Your task to perform on an android device: set an alarm Image 0: 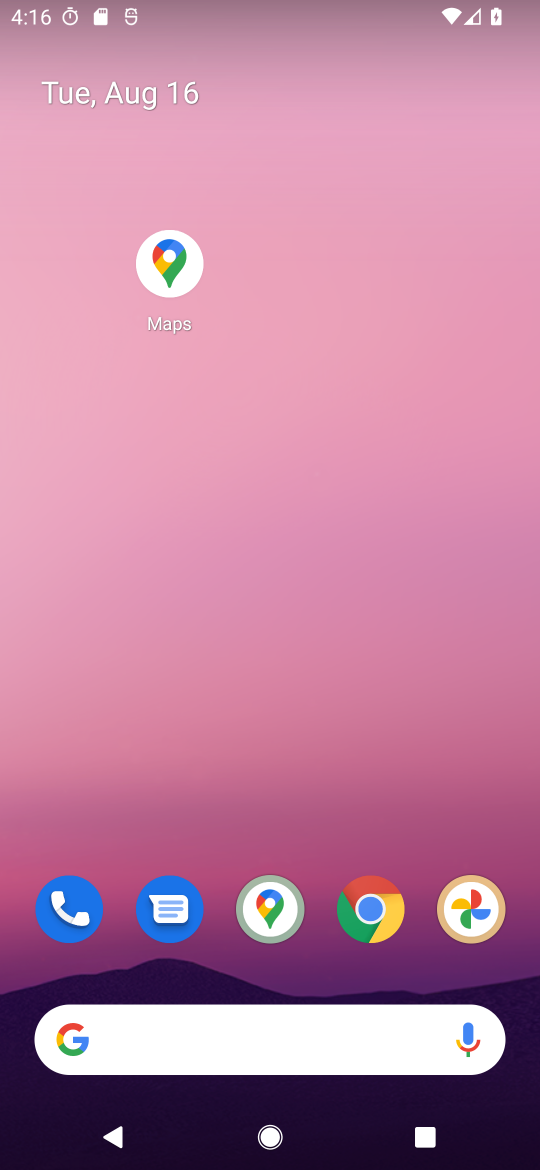
Step 0: drag from (309, 936) to (300, 45)
Your task to perform on an android device: set an alarm Image 1: 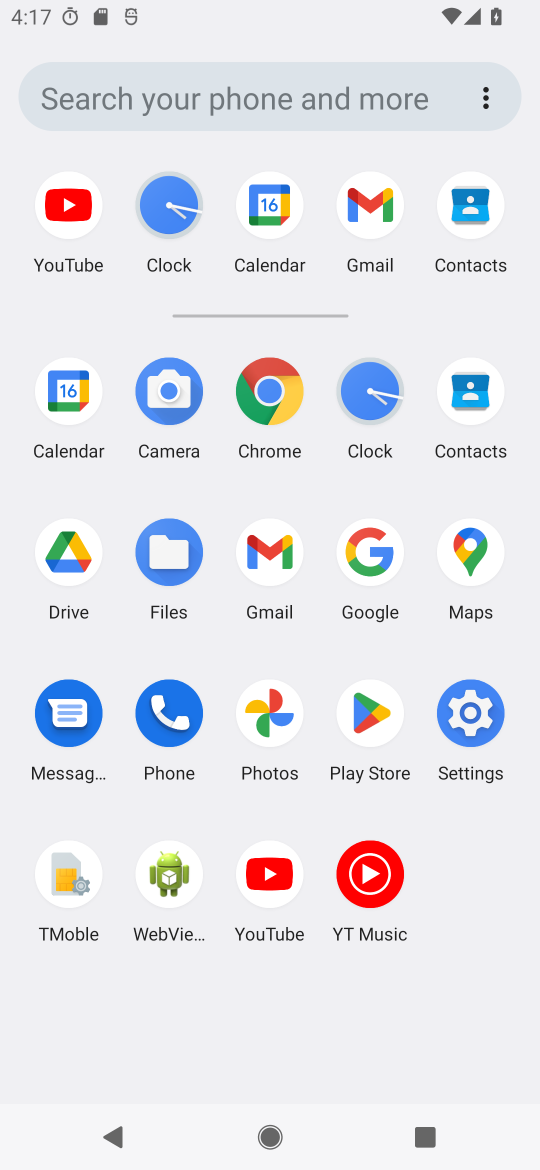
Step 1: click (167, 217)
Your task to perform on an android device: set an alarm Image 2: 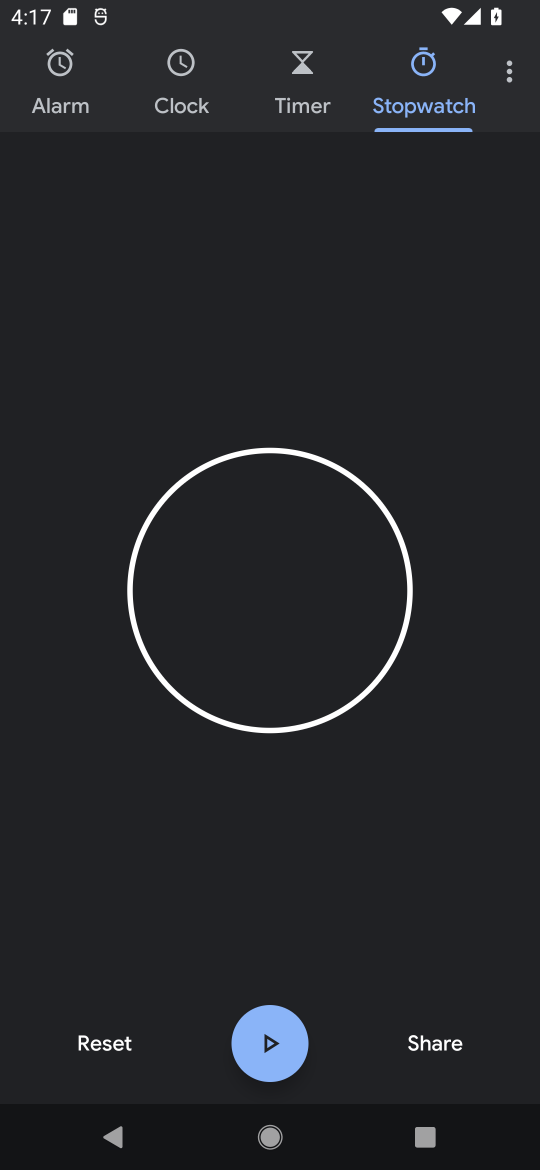
Step 2: click (53, 63)
Your task to perform on an android device: set an alarm Image 3: 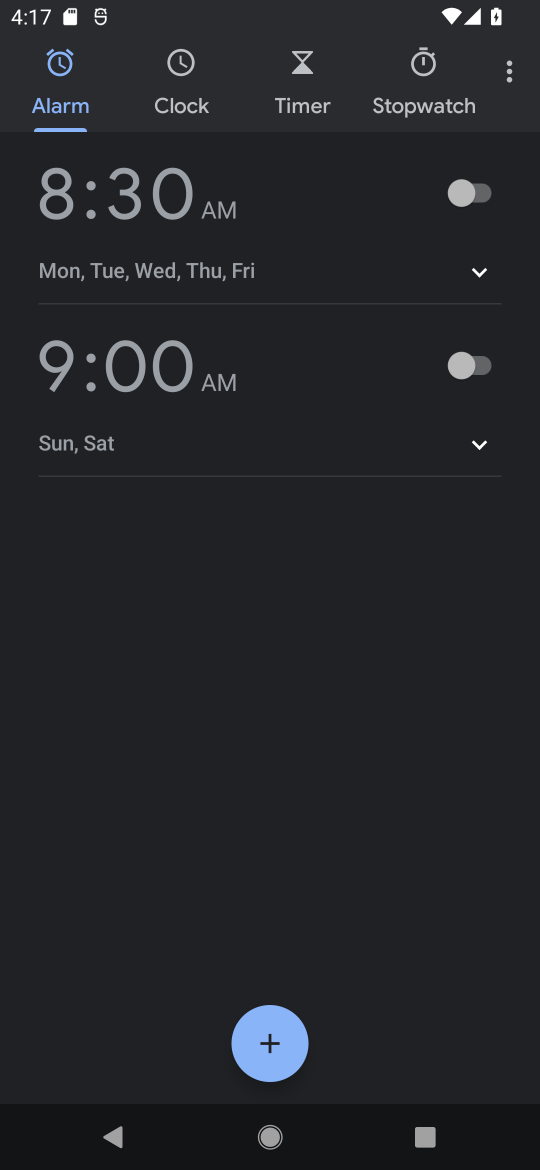
Step 3: click (482, 197)
Your task to perform on an android device: set an alarm Image 4: 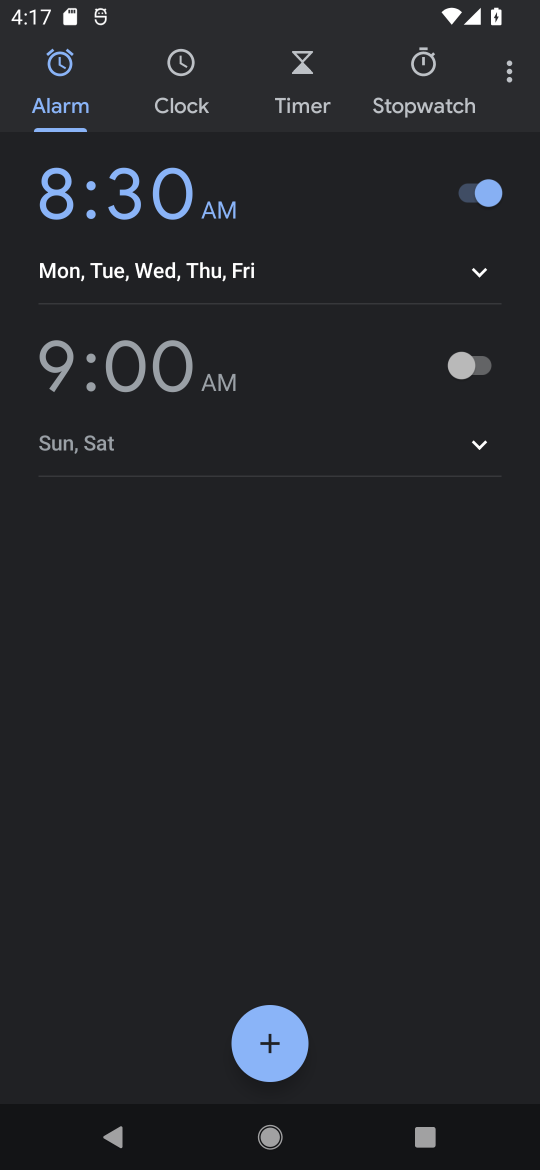
Step 4: task complete